Your task to perform on an android device: change alarm snooze length Image 0: 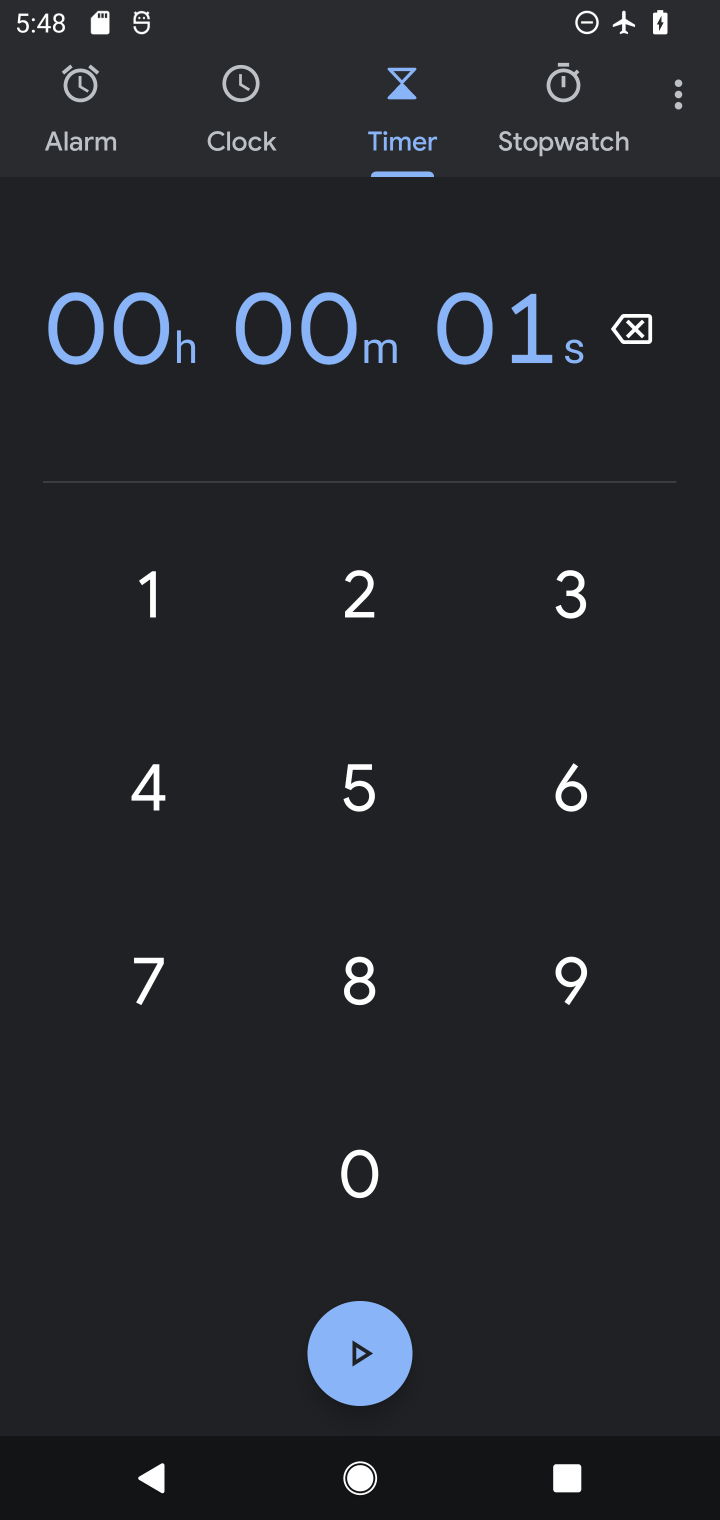
Step 0: click (673, 97)
Your task to perform on an android device: change alarm snooze length Image 1: 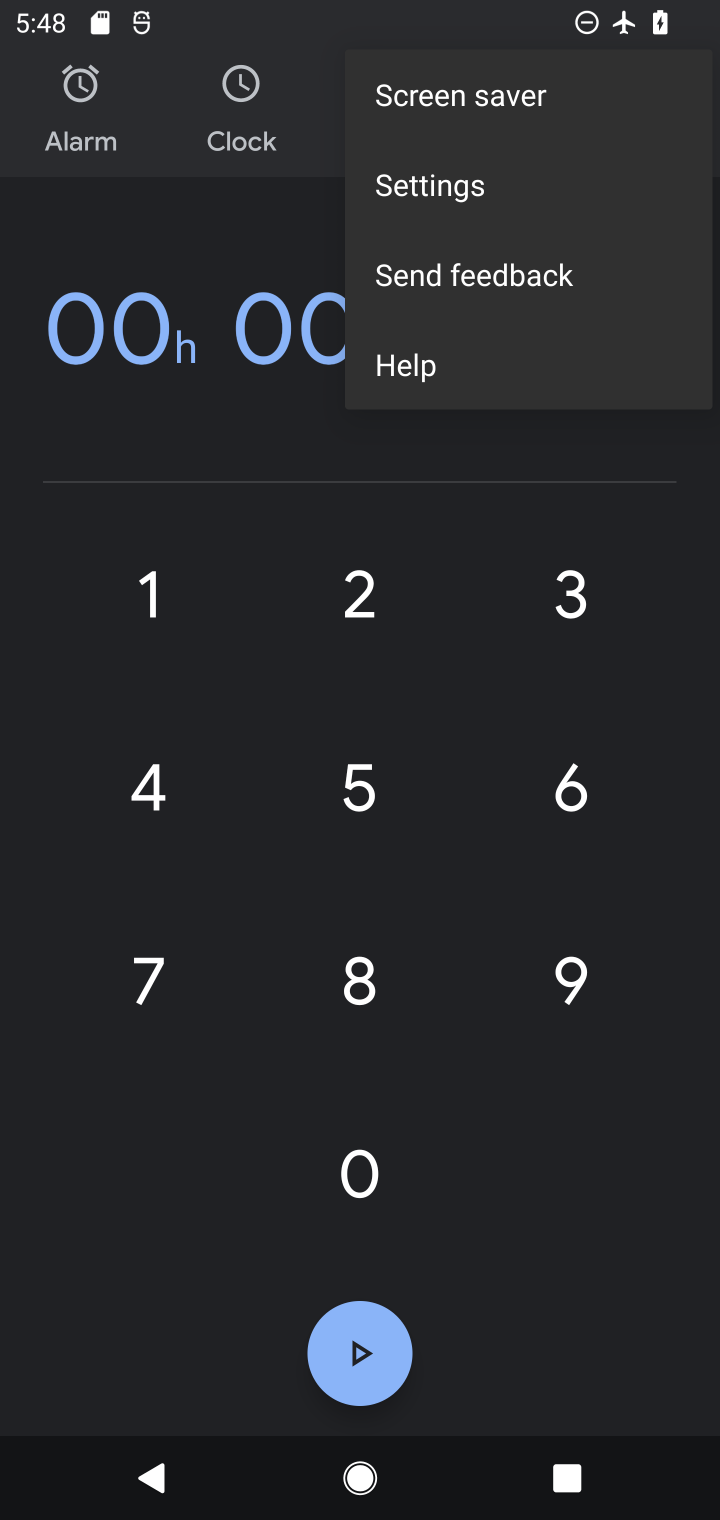
Step 1: click (499, 181)
Your task to perform on an android device: change alarm snooze length Image 2: 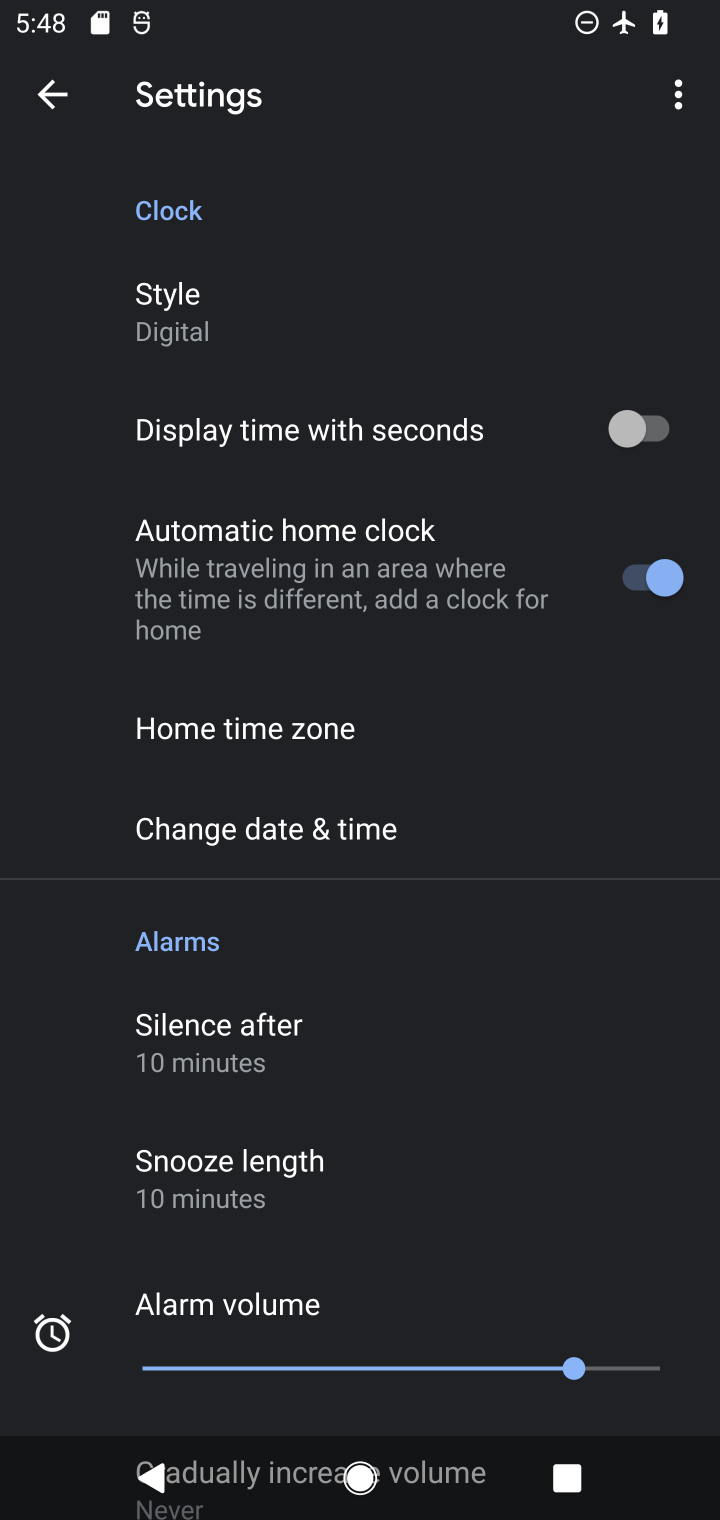
Step 2: click (246, 1185)
Your task to perform on an android device: change alarm snooze length Image 3: 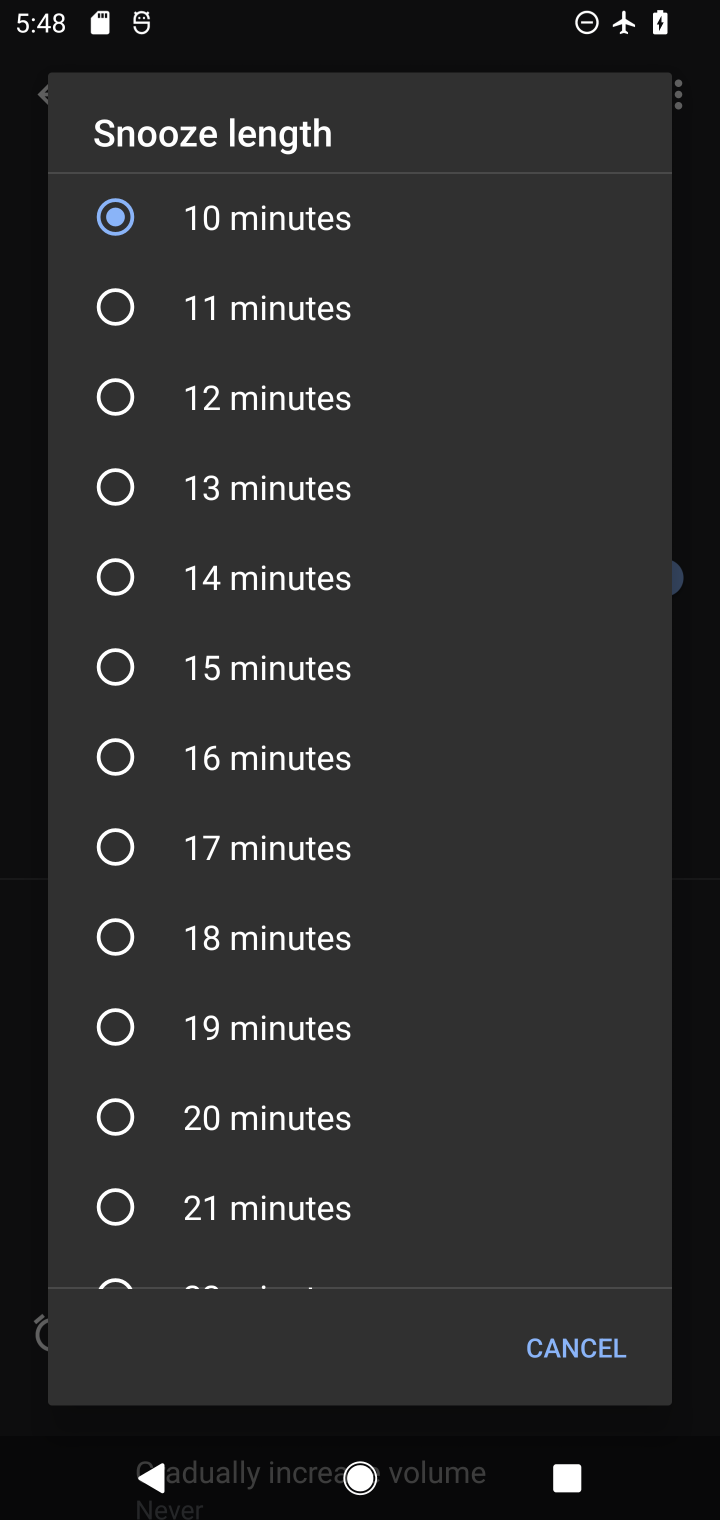
Step 3: click (119, 408)
Your task to perform on an android device: change alarm snooze length Image 4: 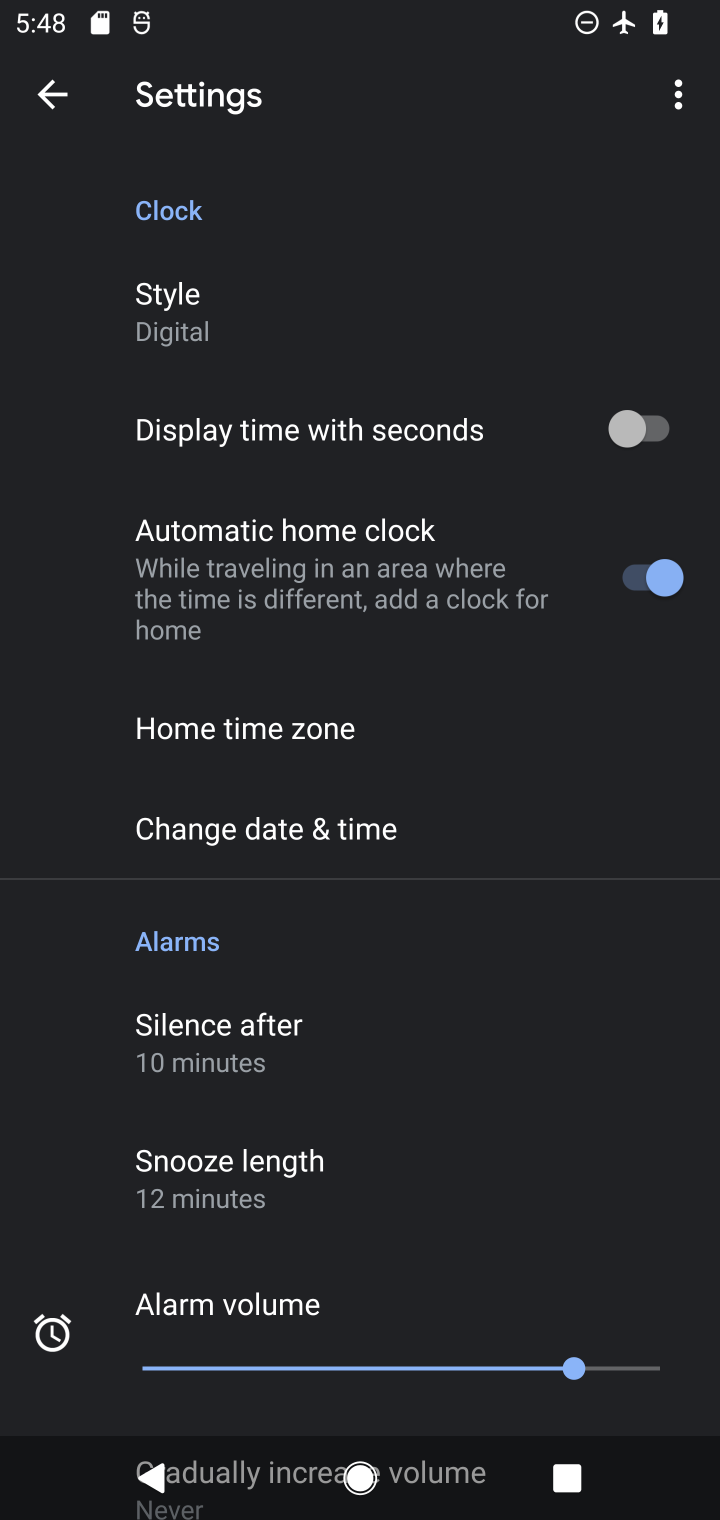
Step 4: task complete